Your task to perform on an android device: Open settings on Google Maps Image 0: 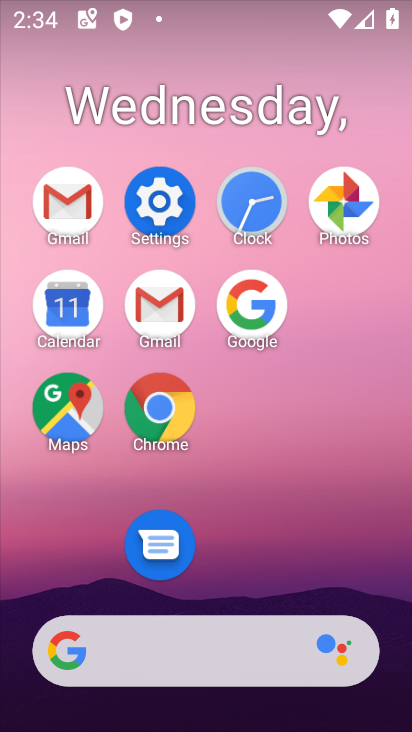
Step 0: click (57, 397)
Your task to perform on an android device: Open settings on Google Maps Image 1: 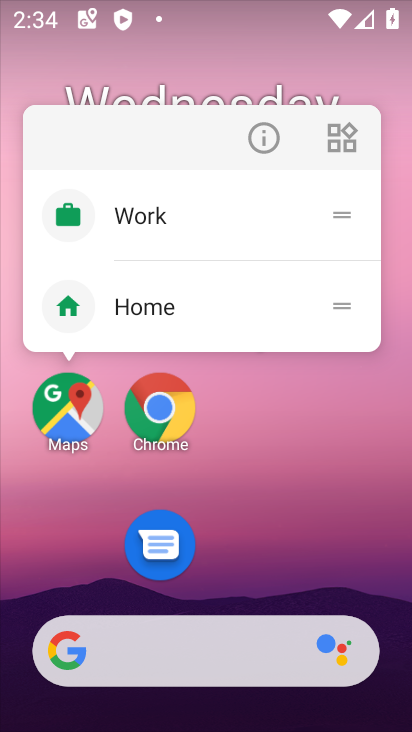
Step 1: click (82, 409)
Your task to perform on an android device: Open settings on Google Maps Image 2: 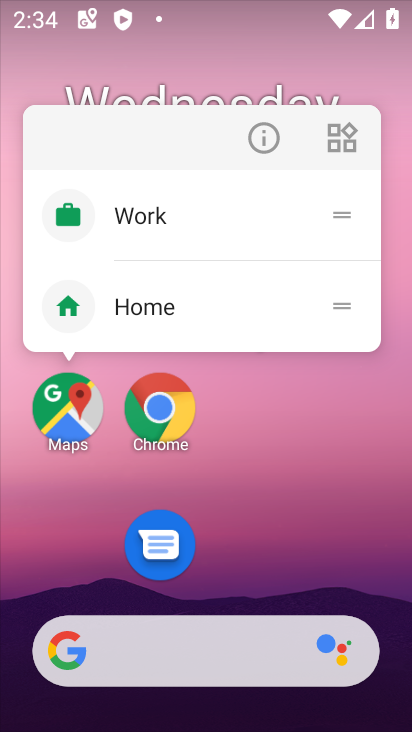
Step 2: click (89, 401)
Your task to perform on an android device: Open settings on Google Maps Image 3: 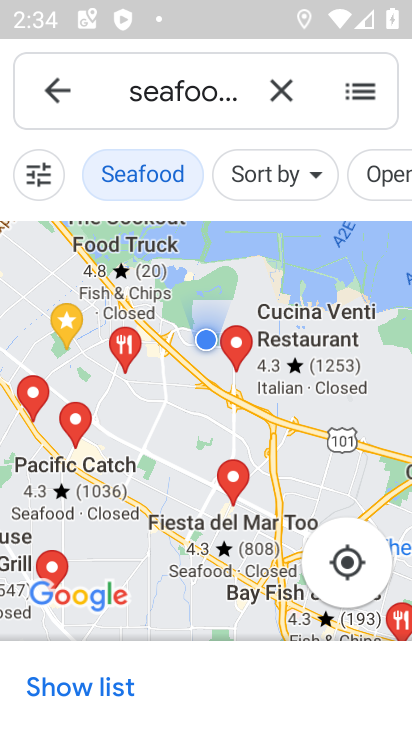
Step 3: click (70, 98)
Your task to perform on an android device: Open settings on Google Maps Image 4: 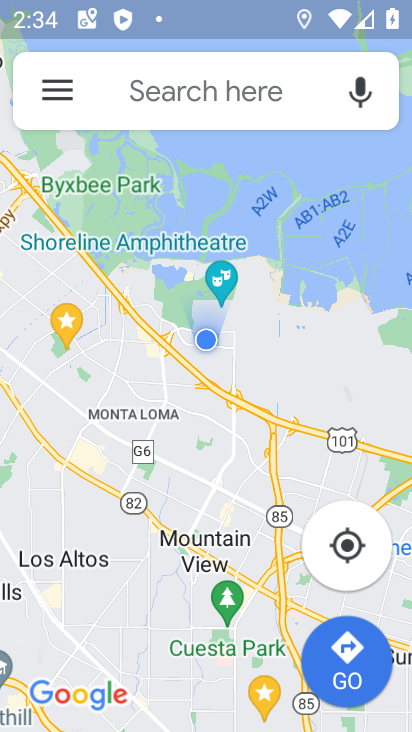
Step 4: click (59, 113)
Your task to perform on an android device: Open settings on Google Maps Image 5: 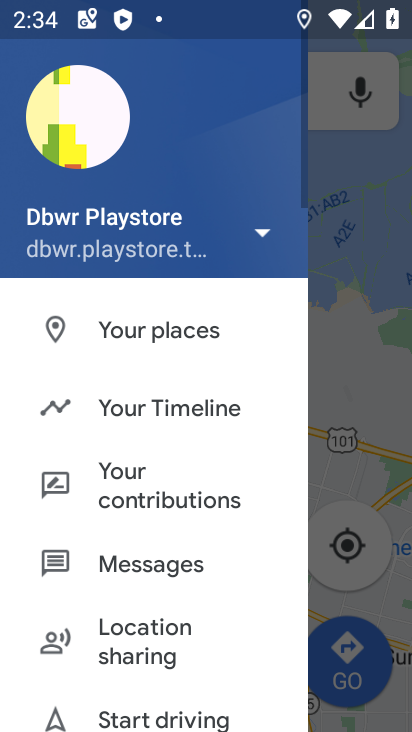
Step 5: drag from (175, 619) to (161, 245)
Your task to perform on an android device: Open settings on Google Maps Image 6: 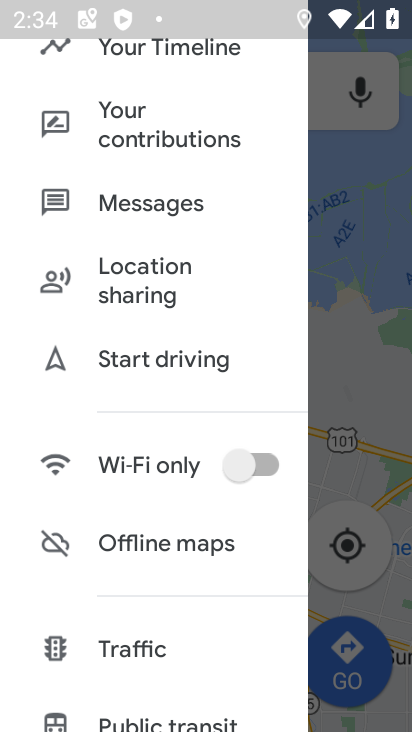
Step 6: drag from (215, 636) to (211, 243)
Your task to perform on an android device: Open settings on Google Maps Image 7: 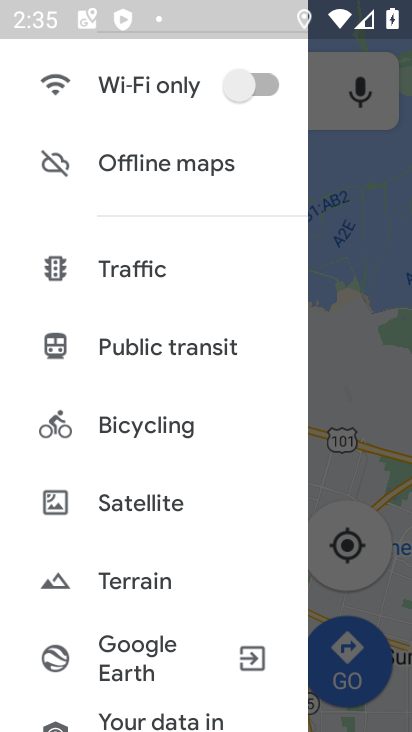
Step 7: drag from (177, 582) to (224, 242)
Your task to perform on an android device: Open settings on Google Maps Image 8: 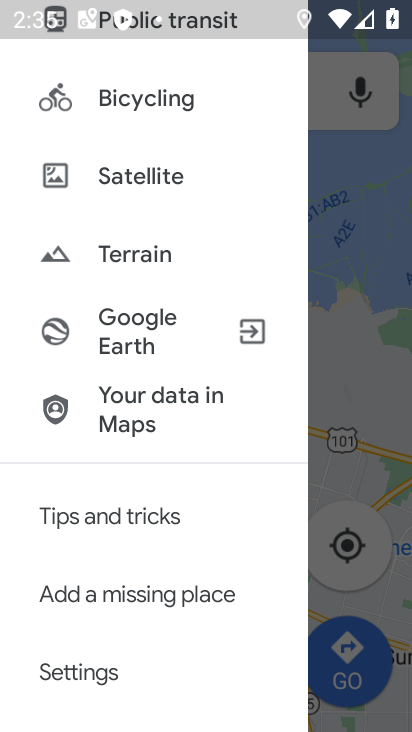
Step 8: click (101, 677)
Your task to perform on an android device: Open settings on Google Maps Image 9: 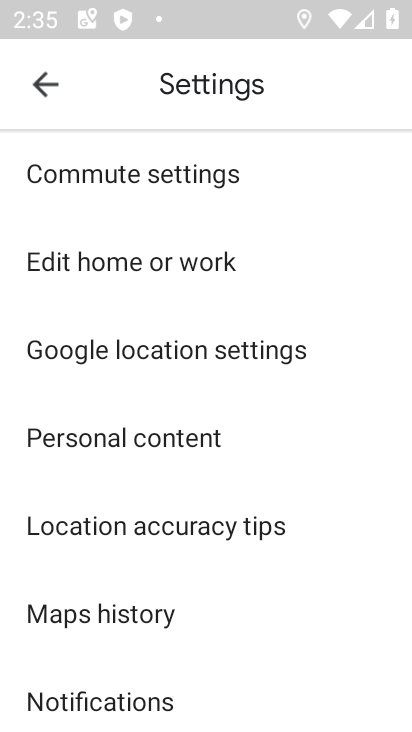
Step 9: task complete